Your task to perform on an android device: Go to Yahoo.com Image 0: 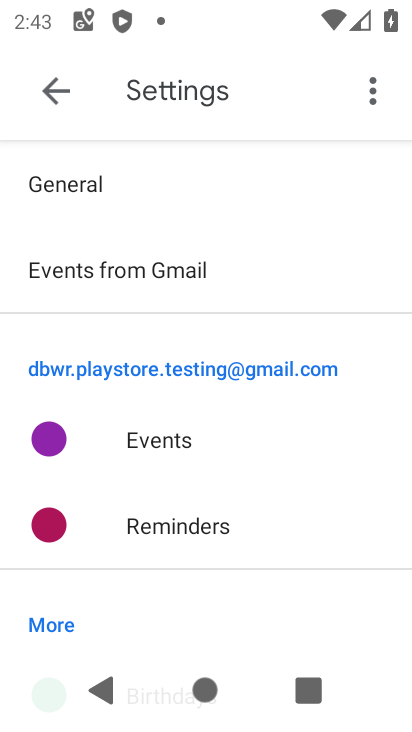
Step 0: press home button
Your task to perform on an android device: Go to Yahoo.com Image 1: 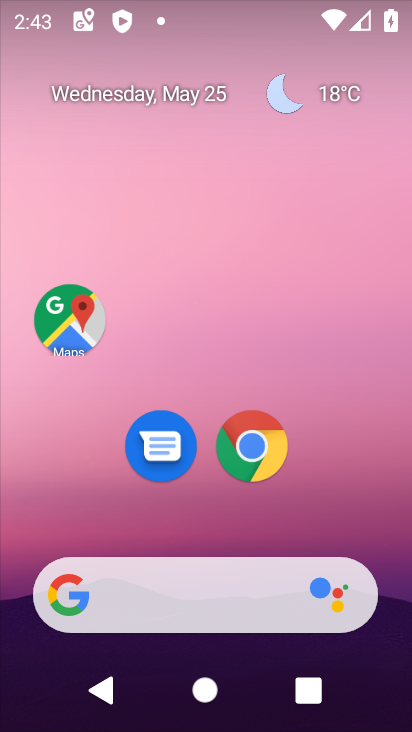
Step 1: click (281, 458)
Your task to perform on an android device: Go to Yahoo.com Image 2: 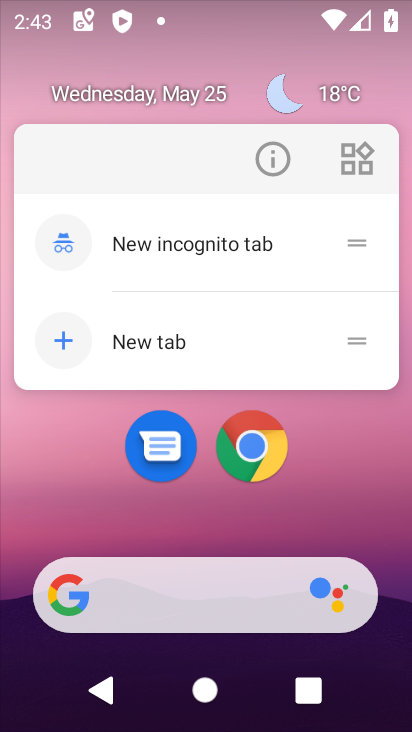
Step 2: click (281, 458)
Your task to perform on an android device: Go to Yahoo.com Image 3: 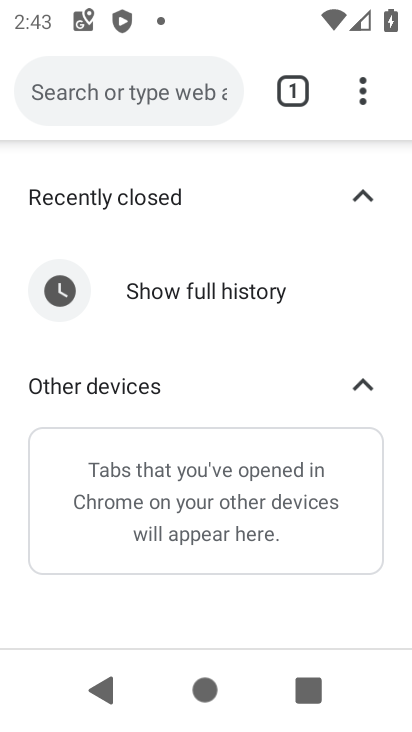
Step 3: click (211, 99)
Your task to perform on an android device: Go to Yahoo.com Image 4: 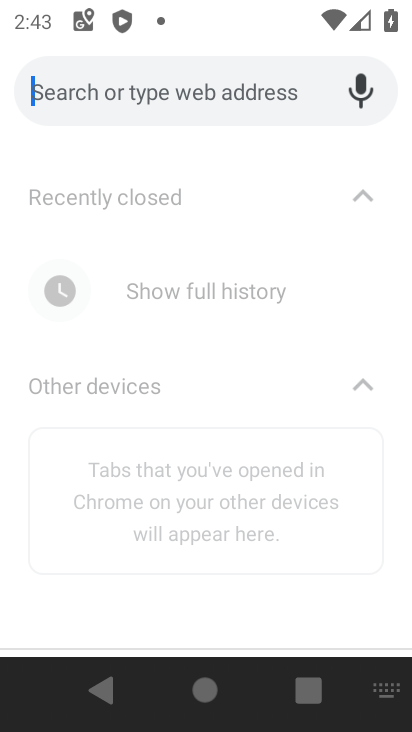
Step 4: drag from (211, 102) to (243, 173)
Your task to perform on an android device: Go to Yahoo.com Image 5: 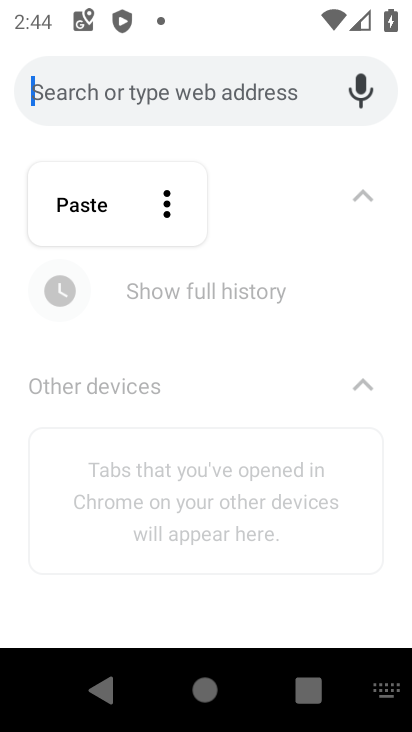
Step 5: type "yahoo.com"
Your task to perform on an android device: Go to Yahoo.com Image 6: 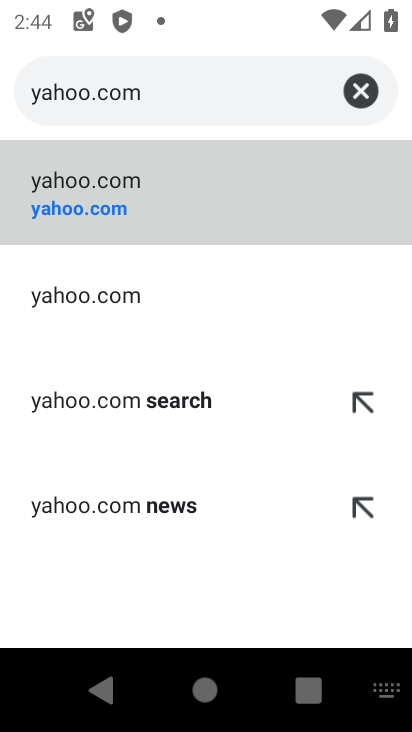
Step 6: click (229, 206)
Your task to perform on an android device: Go to Yahoo.com Image 7: 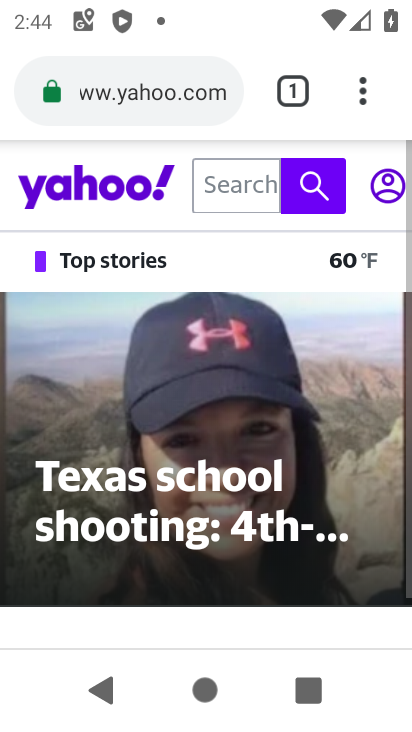
Step 7: task complete